Your task to perform on an android device: Open the Play Movies app and select the watchlist tab. Image 0: 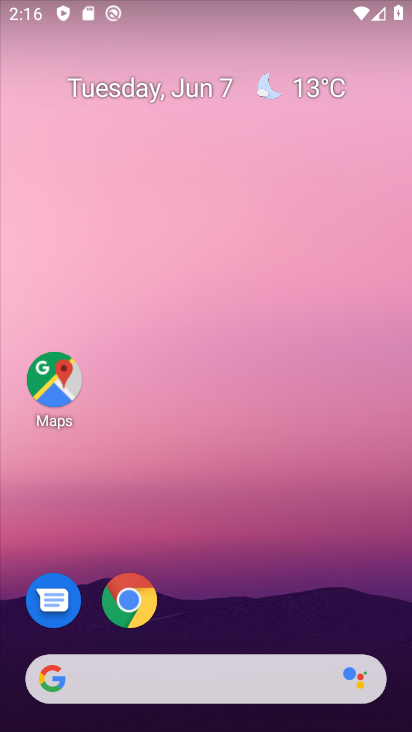
Step 0: drag from (243, 484) to (247, 142)
Your task to perform on an android device: Open the Play Movies app and select the watchlist tab. Image 1: 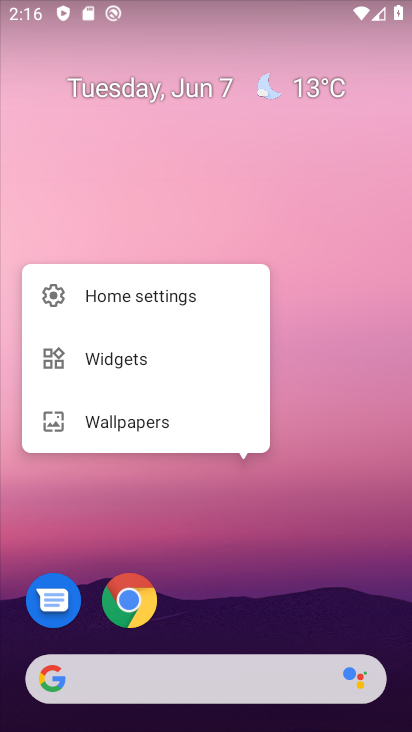
Step 1: click (246, 576)
Your task to perform on an android device: Open the Play Movies app and select the watchlist tab. Image 2: 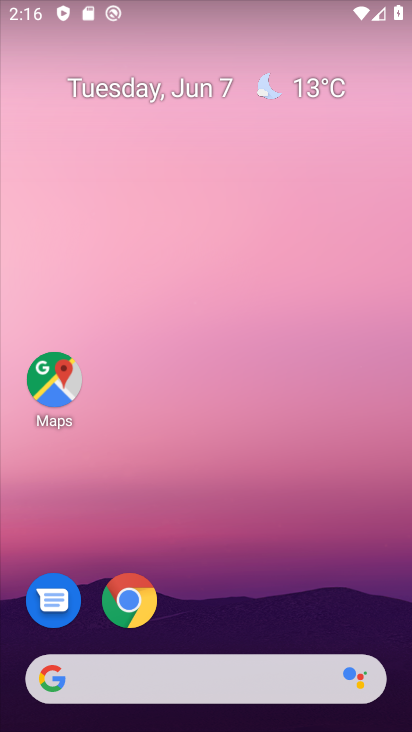
Step 2: drag from (239, 566) to (239, 78)
Your task to perform on an android device: Open the Play Movies app and select the watchlist tab. Image 3: 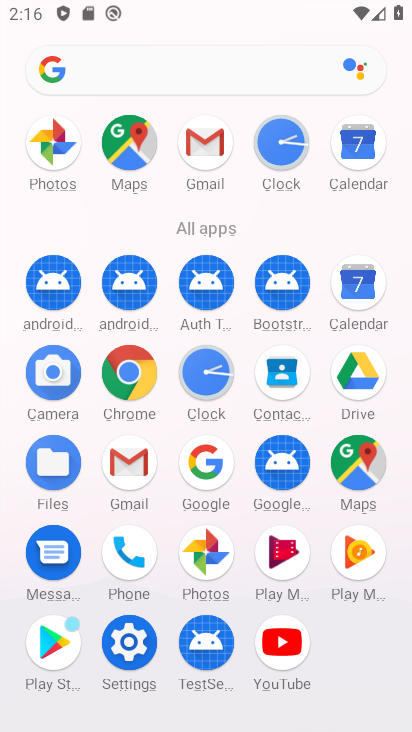
Step 3: click (285, 550)
Your task to perform on an android device: Open the Play Movies app and select the watchlist tab. Image 4: 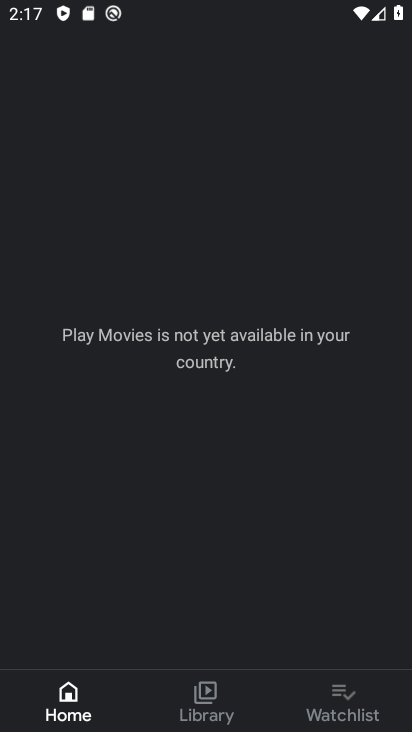
Step 4: click (348, 699)
Your task to perform on an android device: Open the Play Movies app and select the watchlist tab. Image 5: 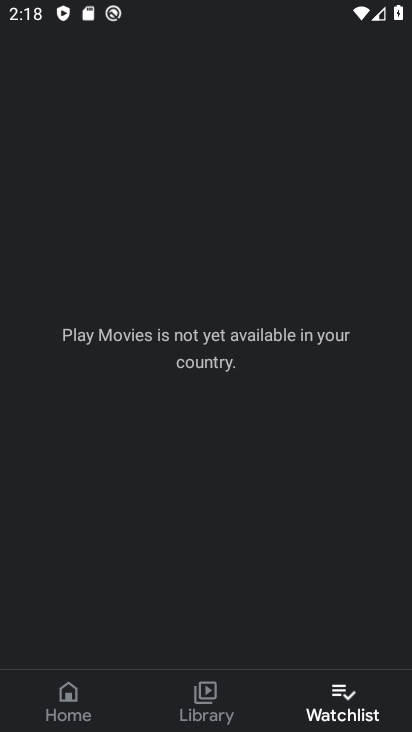
Step 5: task complete